Your task to perform on an android device: turn off location history Image 0: 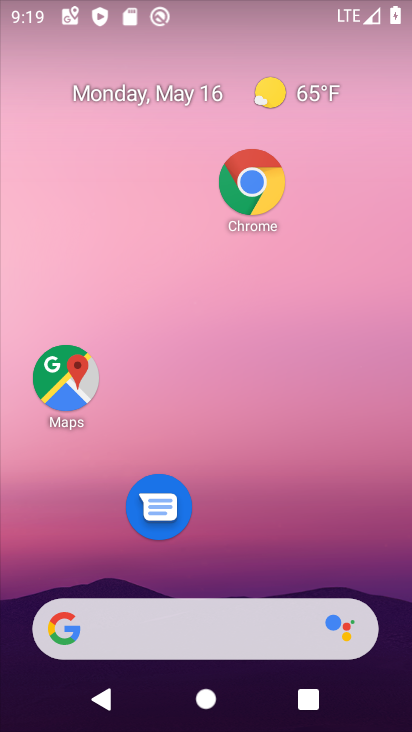
Step 0: drag from (191, 576) to (297, 17)
Your task to perform on an android device: turn off location history Image 1: 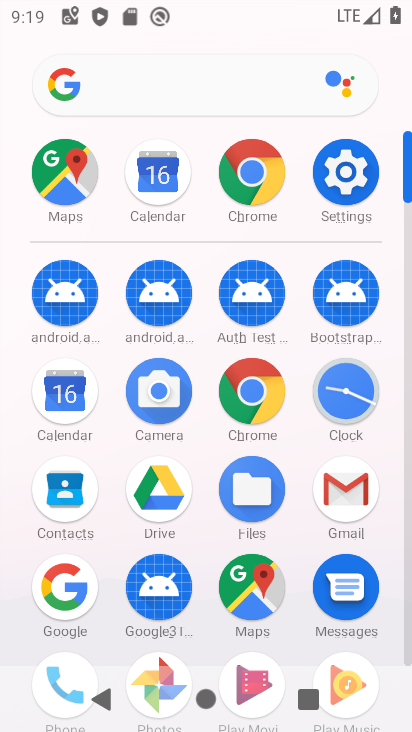
Step 1: click (352, 179)
Your task to perform on an android device: turn off location history Image 2: 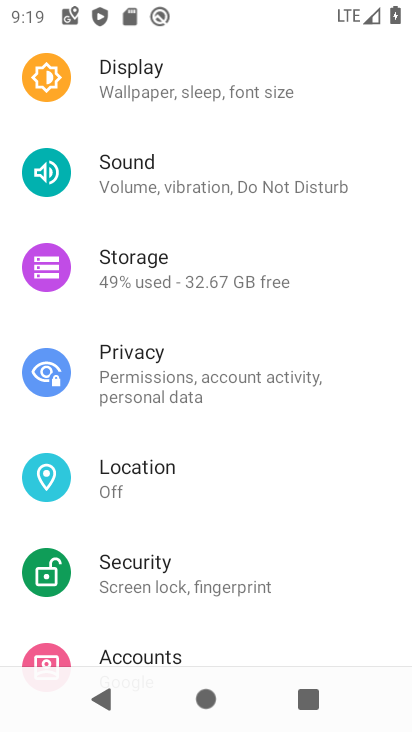
Step 2: click (177, 479)
Your task to perform on an android device: turn off location history Image 3: 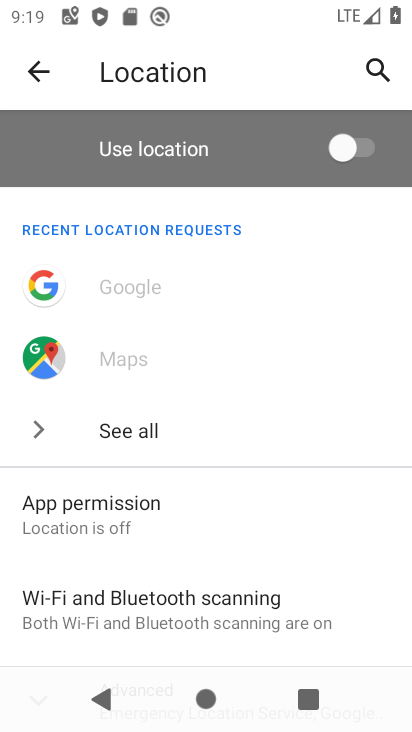
Step 3: drag from (147, 606) to (87, 59)
Your task to perform on an android device: turn off location history Image 4: 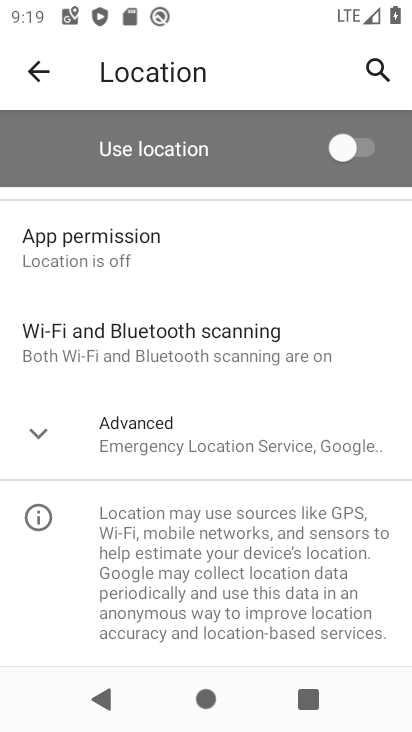
Step 4: click (168, 414)
Your task to perform on an android device: turn off location history Image 5: 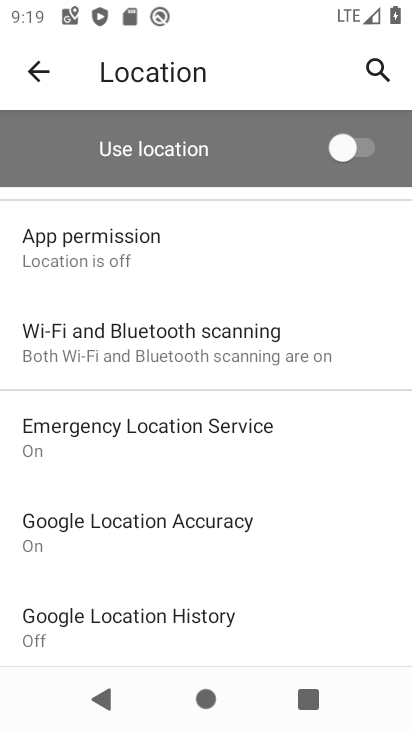
Step 5: click (174, 636)
Your task to perform on an android device: turn off location history Image 6: 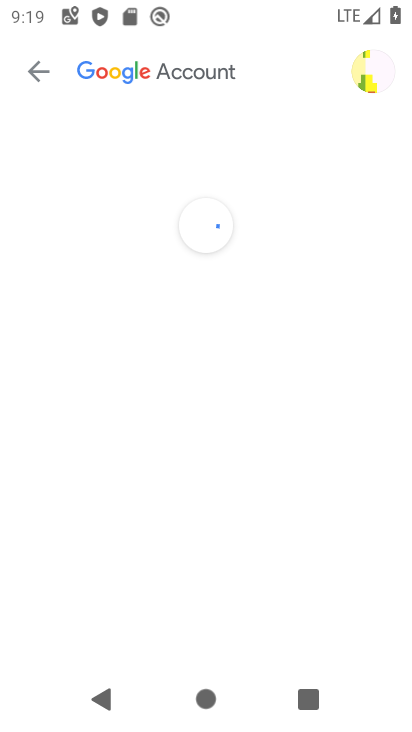
Step 6: drag from (206, 556) to (171, 162)
Your task to perform on an android device: turn off location history Image 7: 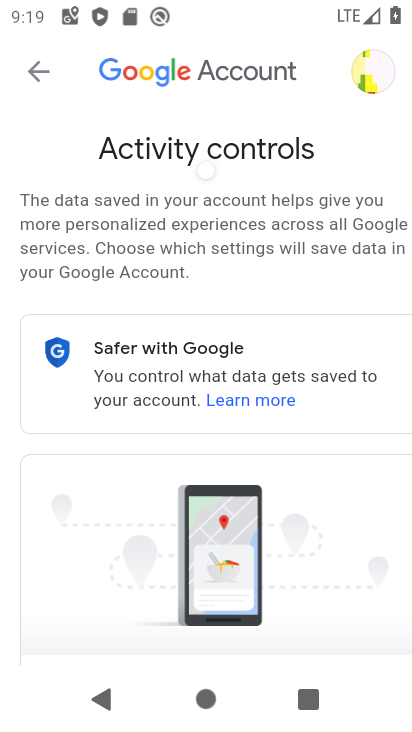
Step 7: drag from (270, 479) to (189, 7)
Your task to perform on an android device: turn off location history Image 8: 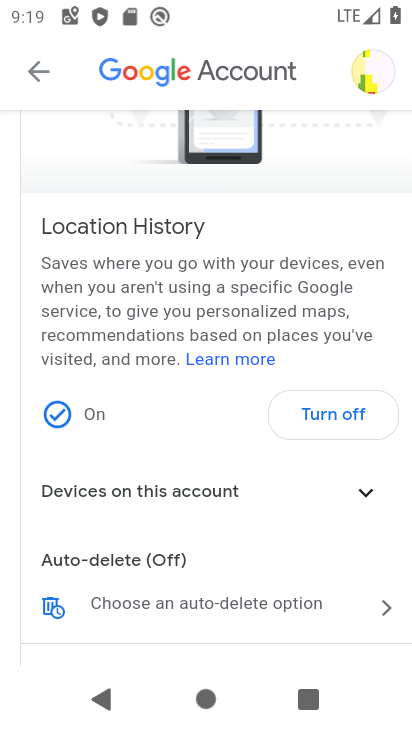
Step 8: click (333, 425)
Your task to perform on an android device: turn off location history Image 9: 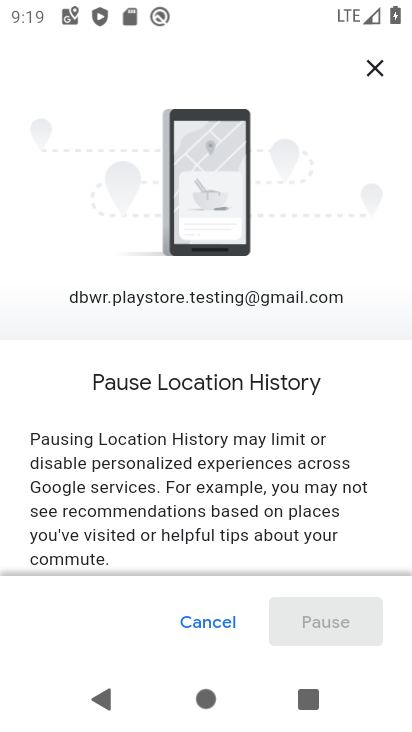
Step 9: drag from (256, 549) to (262, 4)
Your task to perform on an android device: turn off location history Image 10: 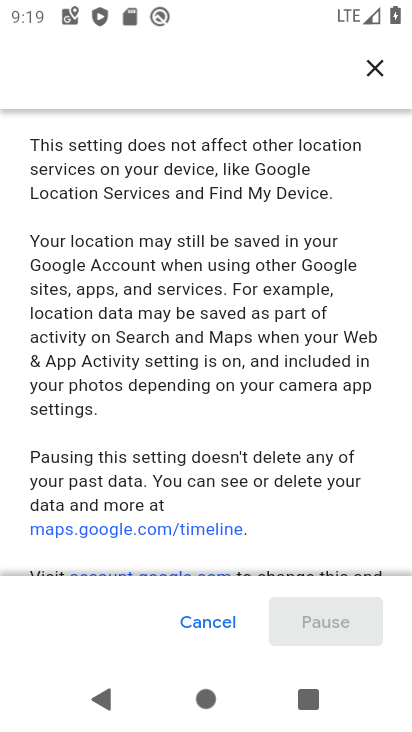
Step 10: drag from (319, 496) to (303, 54)
Your task to perform on an android device: turn off location history Image 11: 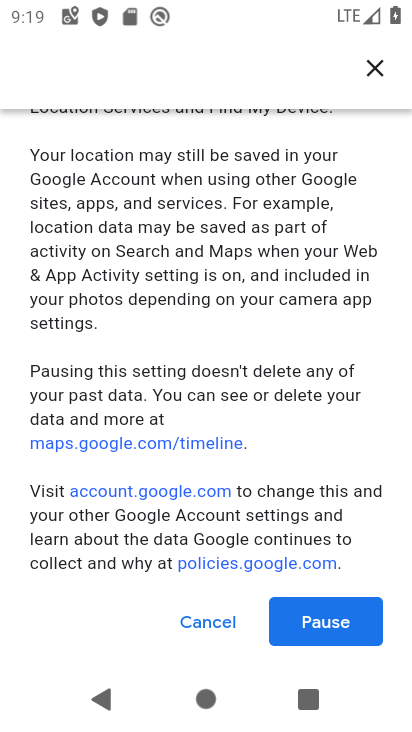
Step 11: click (327, 634)
Your task to perform on an android device: turn off location history Image 12: 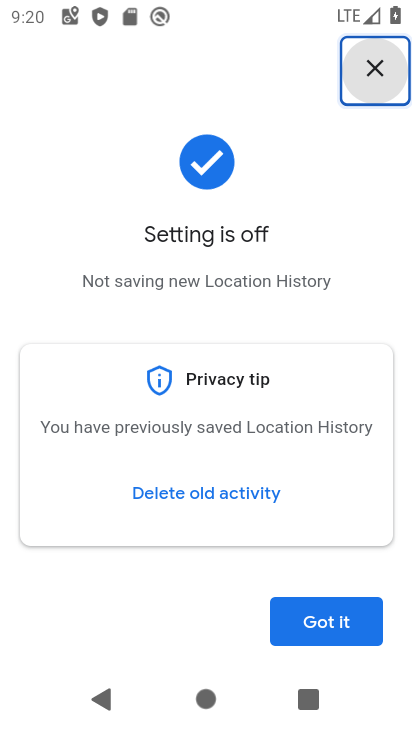
Step 12: click (321, 617)
Your task to perform on an android device: turn off location history Image 13: 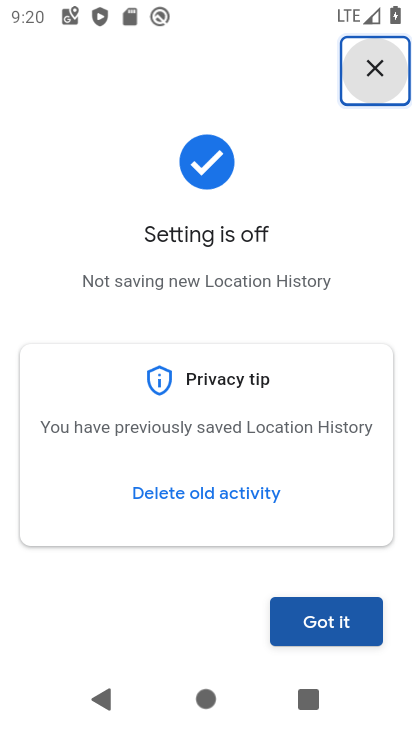
Step 13: task complete